Your task to perform on an android device: Open calendar and show me the fourth week of next month Image 0: 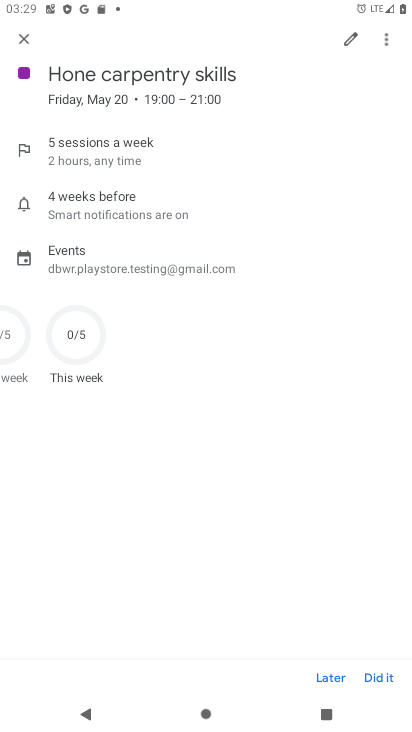
Step 0: click (23, 44)
Your task to perform on an android device: Open calendar and show me the fourth week of next month Image 1: 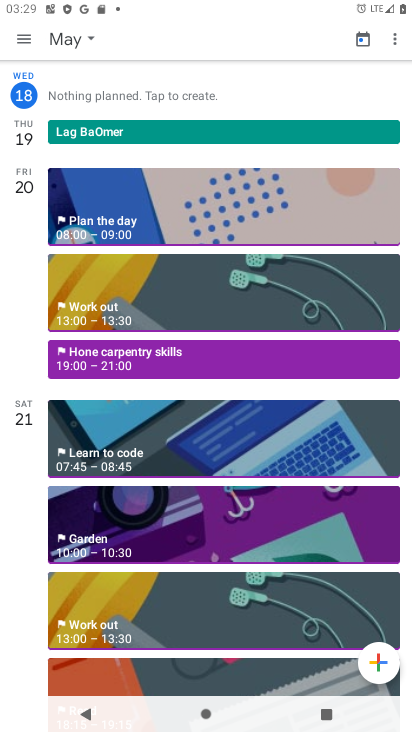
Step 1: click (88, 36)
Your task to perform on an android device: Open calendar and show me the fourth week of next month Image 2: 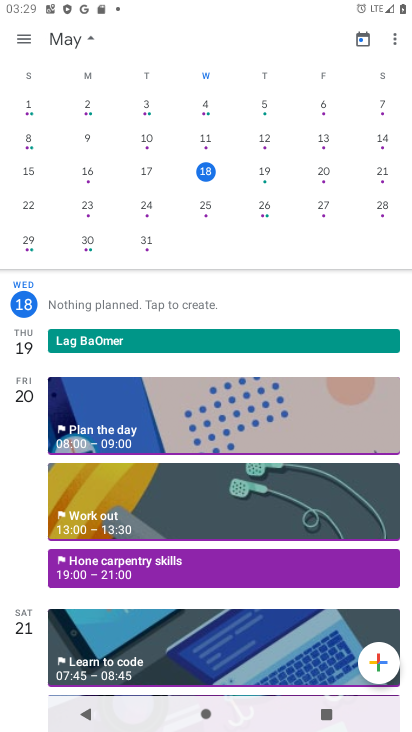
Step 2: drag from (326, 192) to (16, 421)
Your task to perform on an android device: Open calendar and show me the fourth week of next month Image 3: 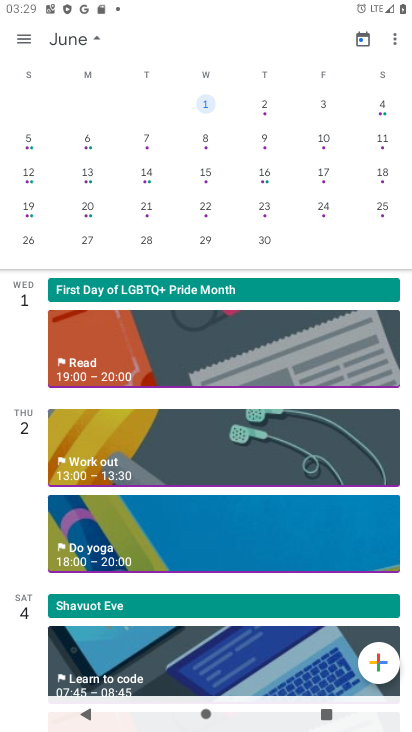
Step 3: click (16, 44)
Your task to perform on an android device: Open calendar and show me the fourth week of next month Image 4: 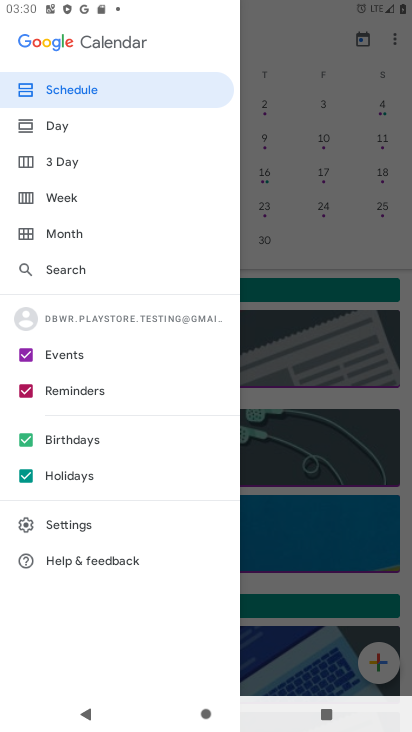
Step 4: click (64, 191)
Your task to perform on an android device: Open calendar and show me the fourth week of next month Image 5: 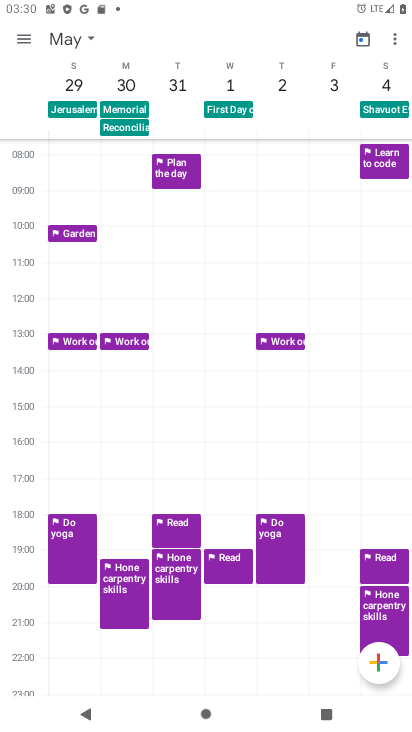
Step 5: task complete